Your task to perform on an android device: Turn on the flashlight Image 0: 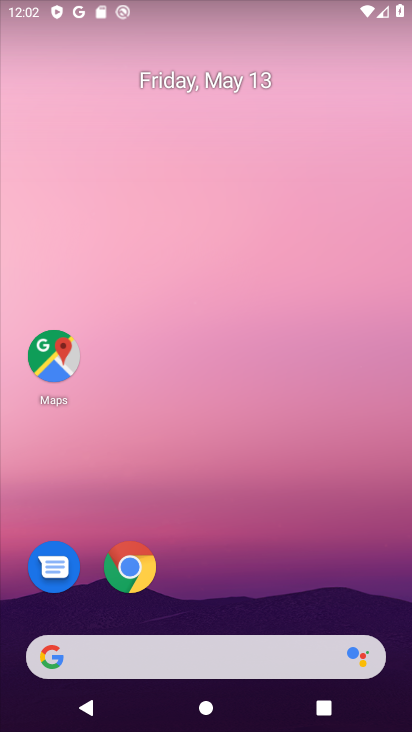
Step 0: drag from (236, 588) to (312, 212)
Your task to perform on an android device: Turn on the flashlight Image 1: 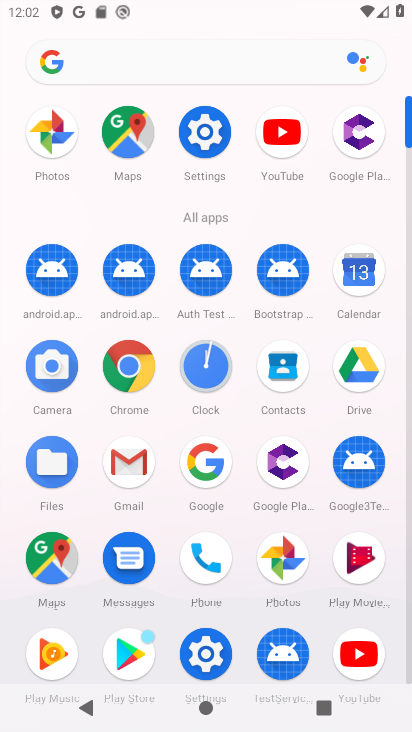
Step 1: click (194, 122)
Your task to perform on an android device: Turn on the flashlight Image 2: 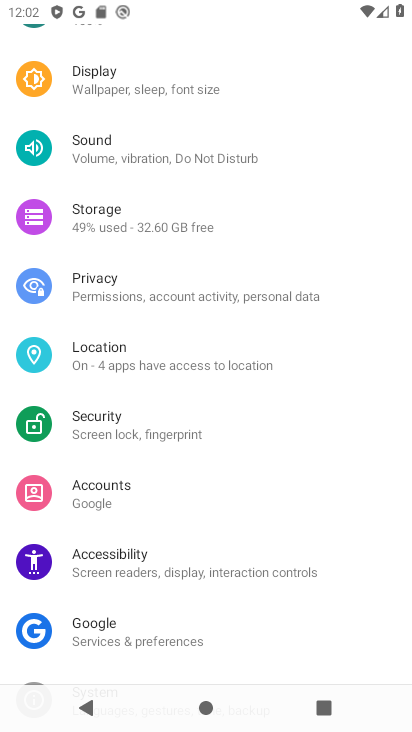
Step 2: drag from (177, 85) to (234, 656)
Your task to perform on an android device: Turn on the flashlight Image 3: 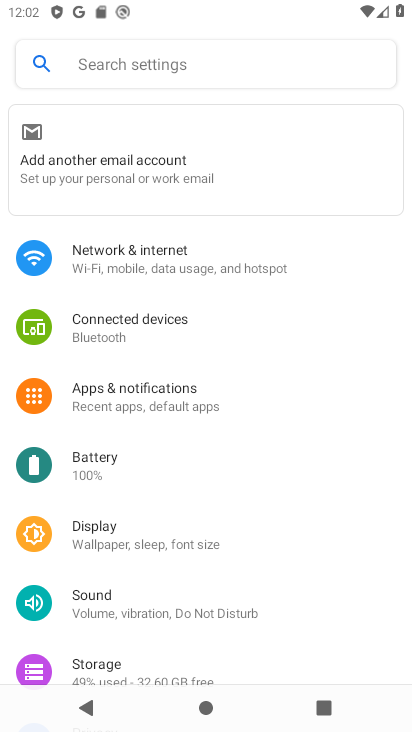
Step 3: click (167, 60)
Your task to perform on an android device: Turn on the flashlight Image 4: 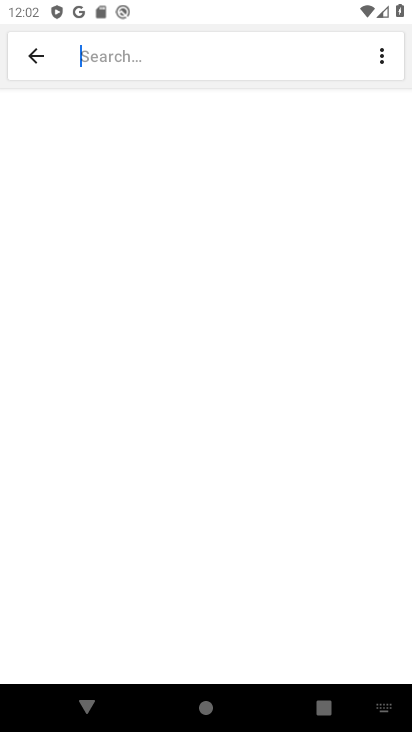
Step 4: type "flashlight"
Your task to perform on an android device: Turn on the flashlight Image 5: 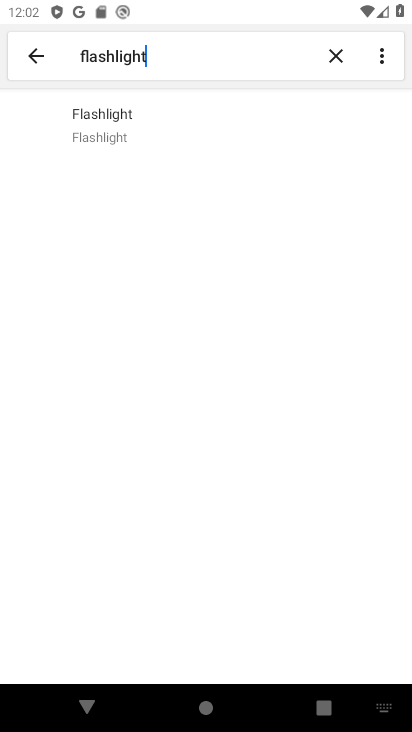
Step 5: click (117, 132)
Your task to perform on an android device: Turn on the flashlight Image 6: 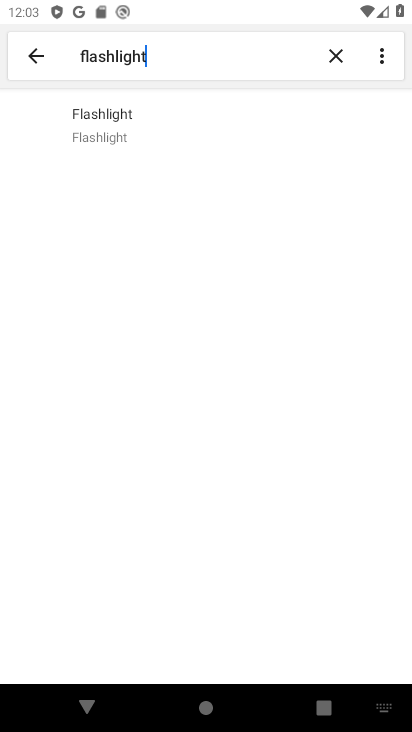
Step 6: click (169, 120)
Your task to perform on an android device: Turn on the flashlight Image 7: 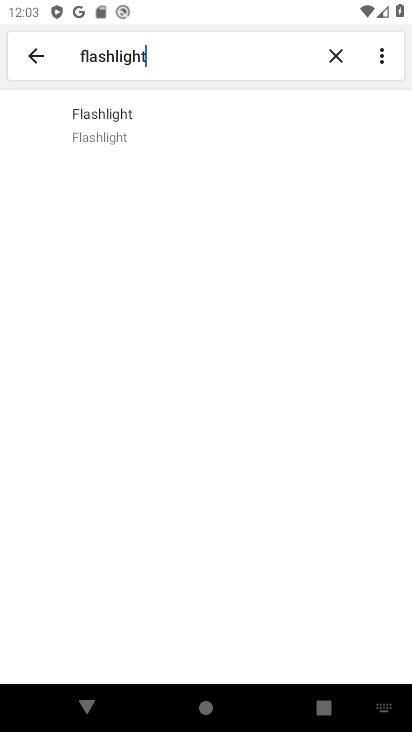
Step 7: task complete